Your task to perform on an android device: Open calendar and show me the fourth week of next month Image 0: 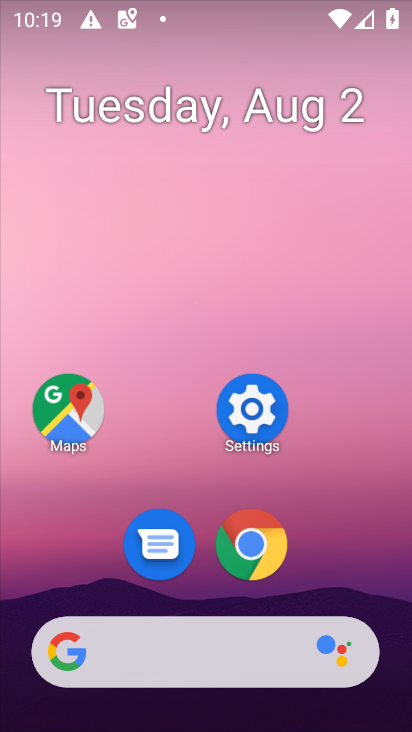
Step 0: press home button
Your task to perform on an android device: Open calendar and show me the fourth week of next month Image 1: 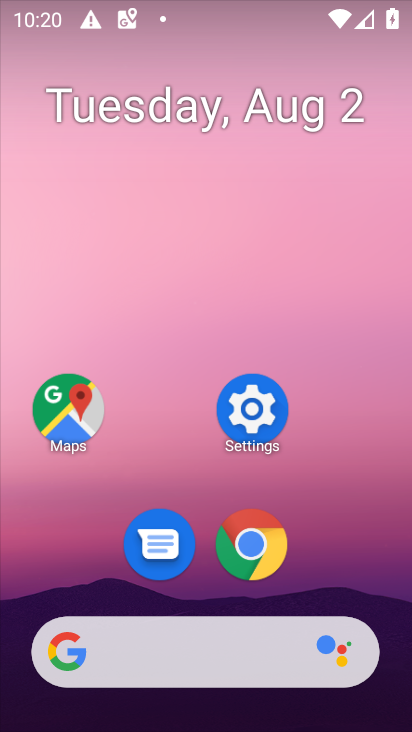
Step 1: drag from (200, 652) to (308, 62)
Your task to perform on an android device: Open calendar and show me the fourth week of next month Image 2: 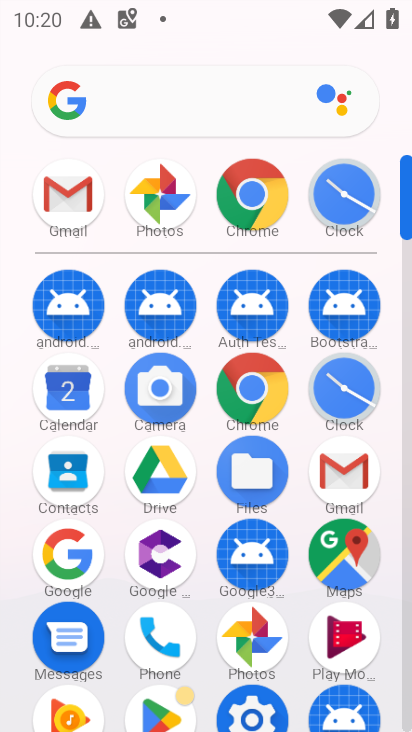
Step 2: click (69, 400)
Your task to perform on an android device: Open calendar and show me the fourth week of next month Image 3: 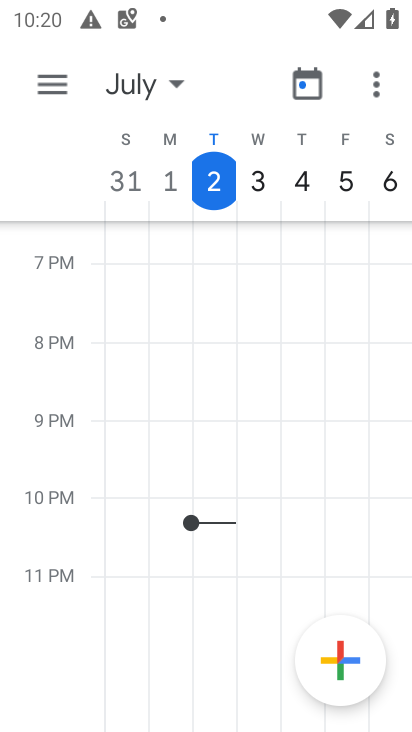
Step 3: click (146, 84)
Your task to perform on an android device: Open calendar and show me the fourth week of next month Image 4: 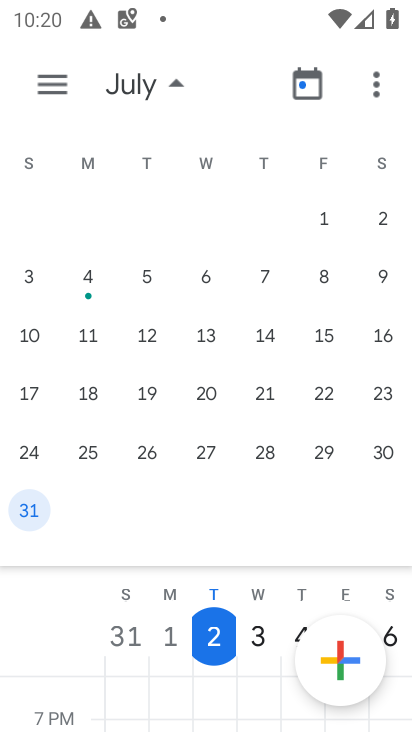
Step 4: drag from (347, 426) to (13, 482)
Your task to perform on an android device: Open calendar and show me the fourth week of next month Image 5: 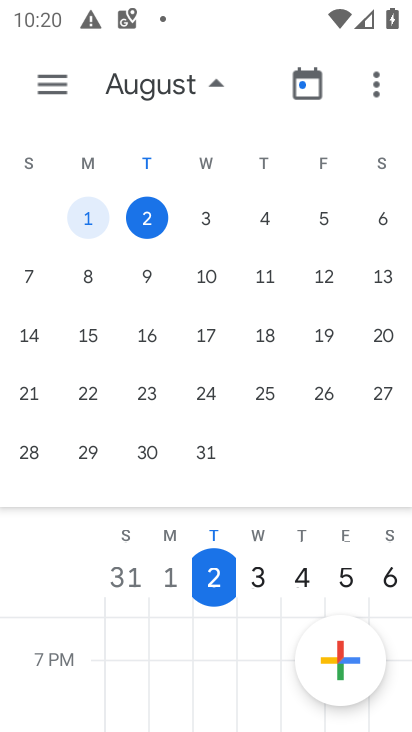
Step 5: click (28, 395)
Your task to perform on an android device: Open calendar and show me the fourth week of next month Image 6: 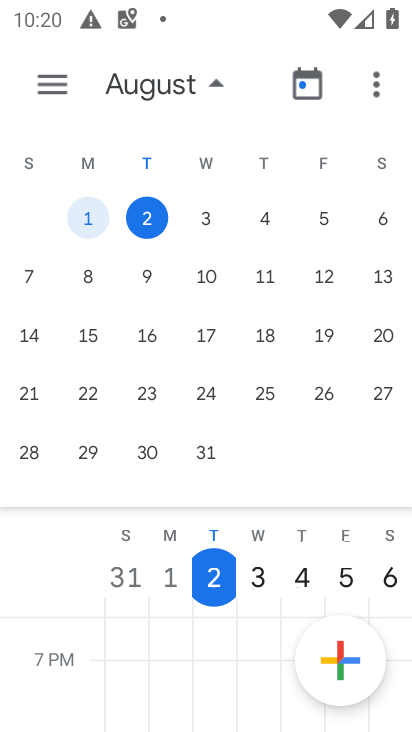
Step 6: click (40, 395)
Your task to perform on an android device: Open calendar and show me the fourth week of next month Image 7: 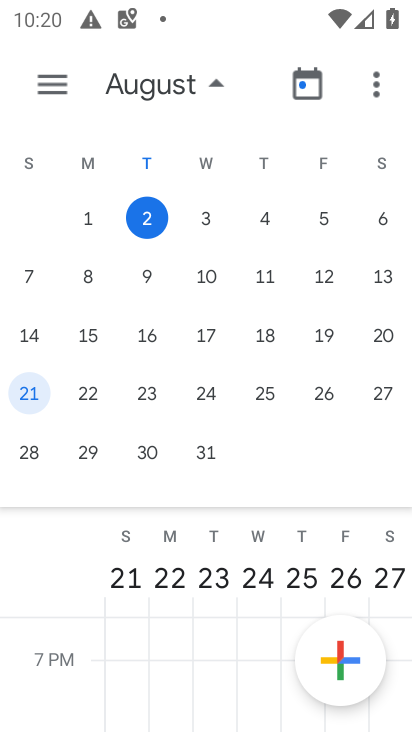
Step 7: task complete